Your task to perform on an android device: install app "Clock" Image 0: 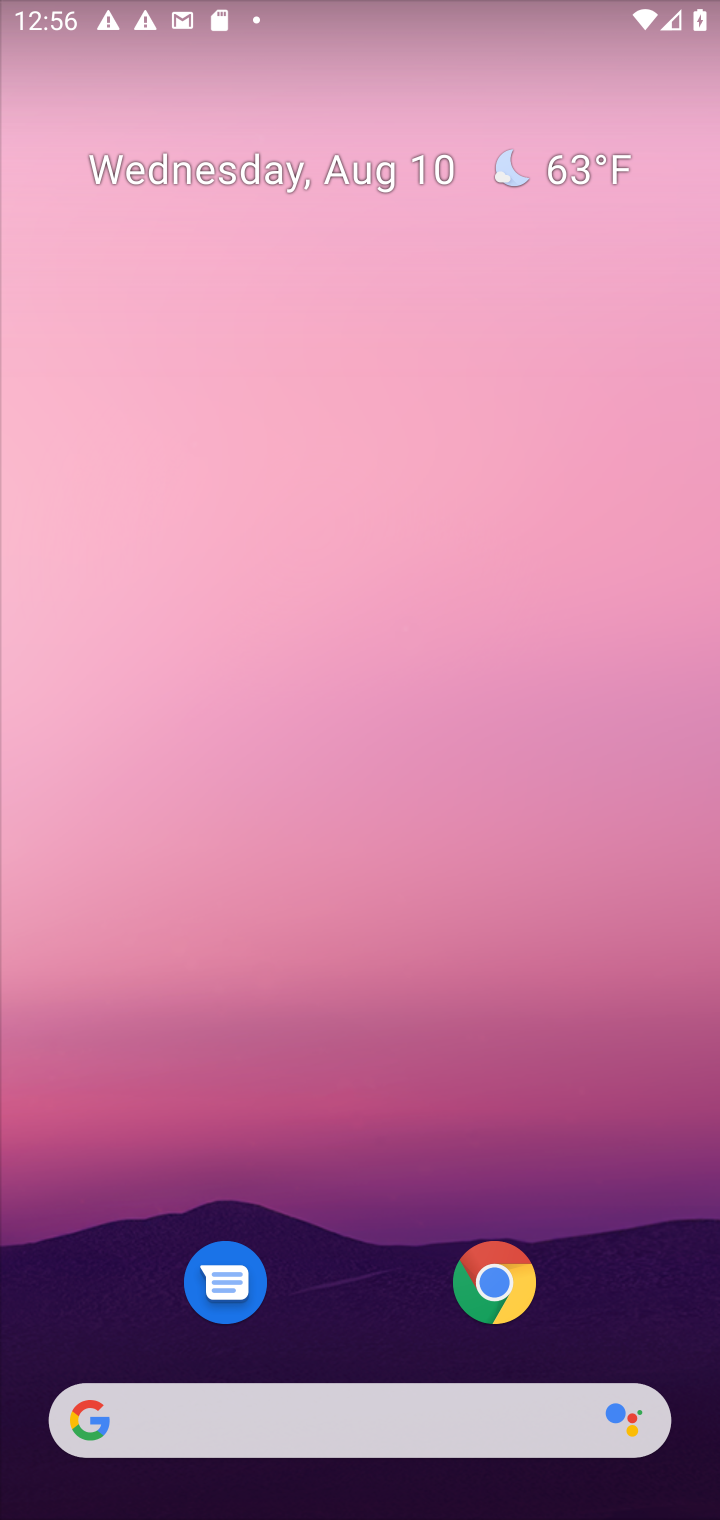
Step 0: drag from (238, 1314) to (307, 382)
Your task to perform on an android device: install app "Clock" Image 1: 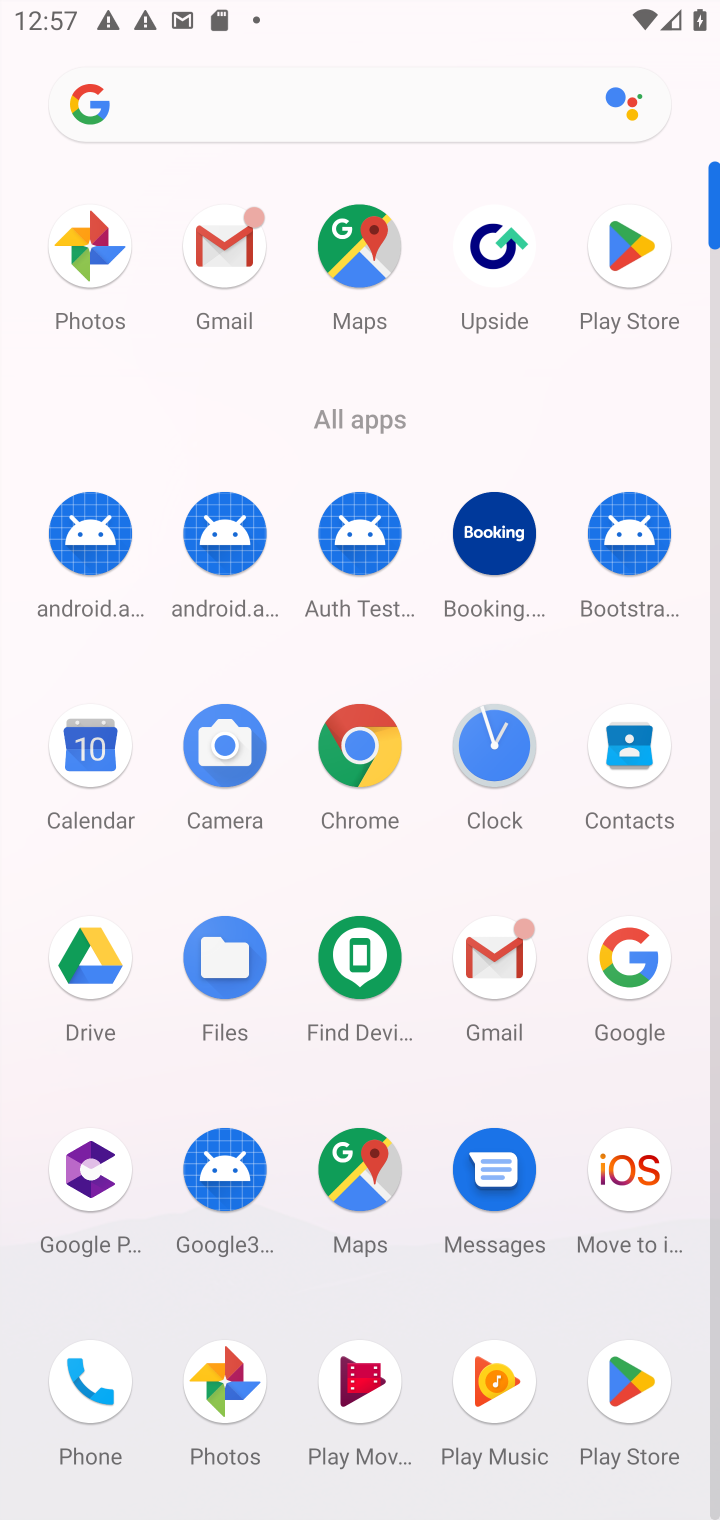
Step 1: click (656, 267)
Your task to perform on an android device: install app "Clock" Image 2: 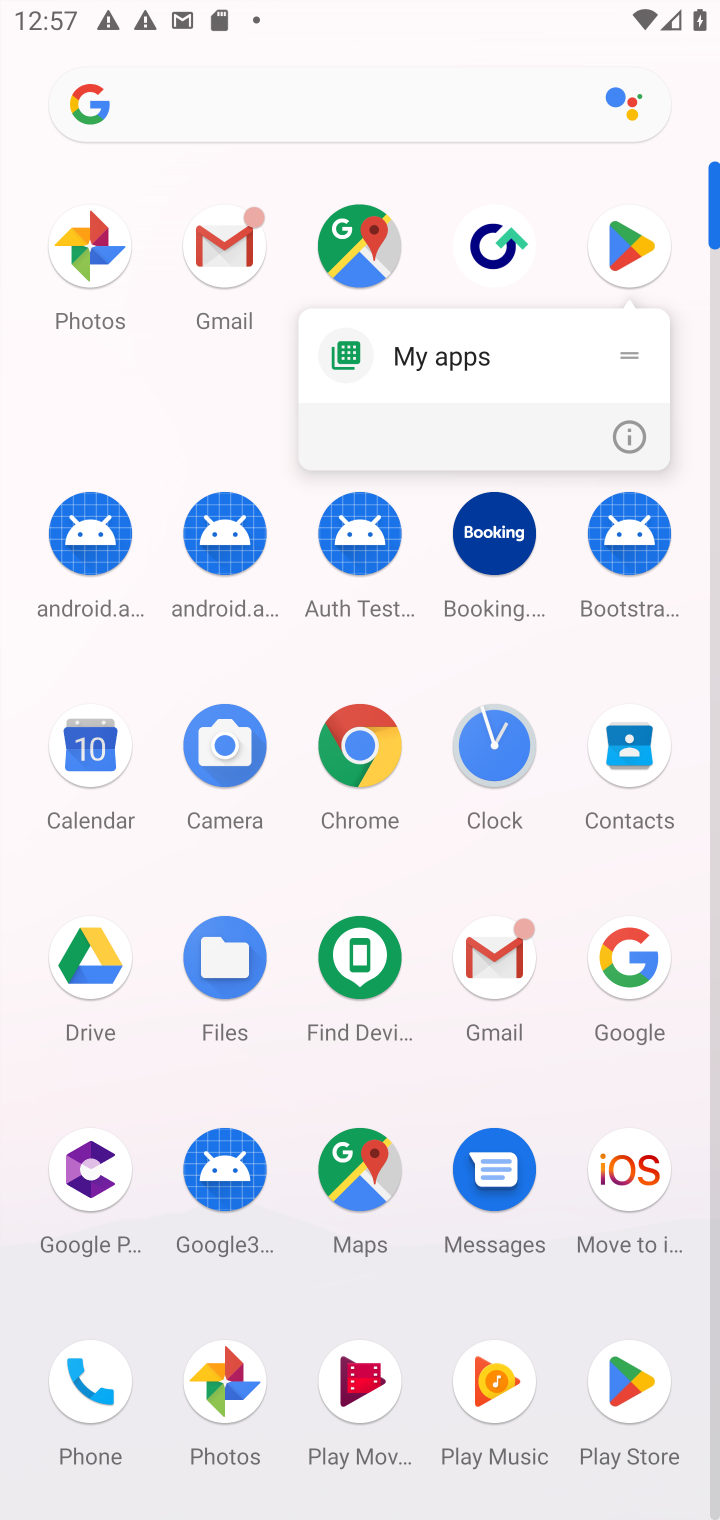
Step 2: click (611, 270)
Your task to perform on an android device: install app "Clock" Image 3: 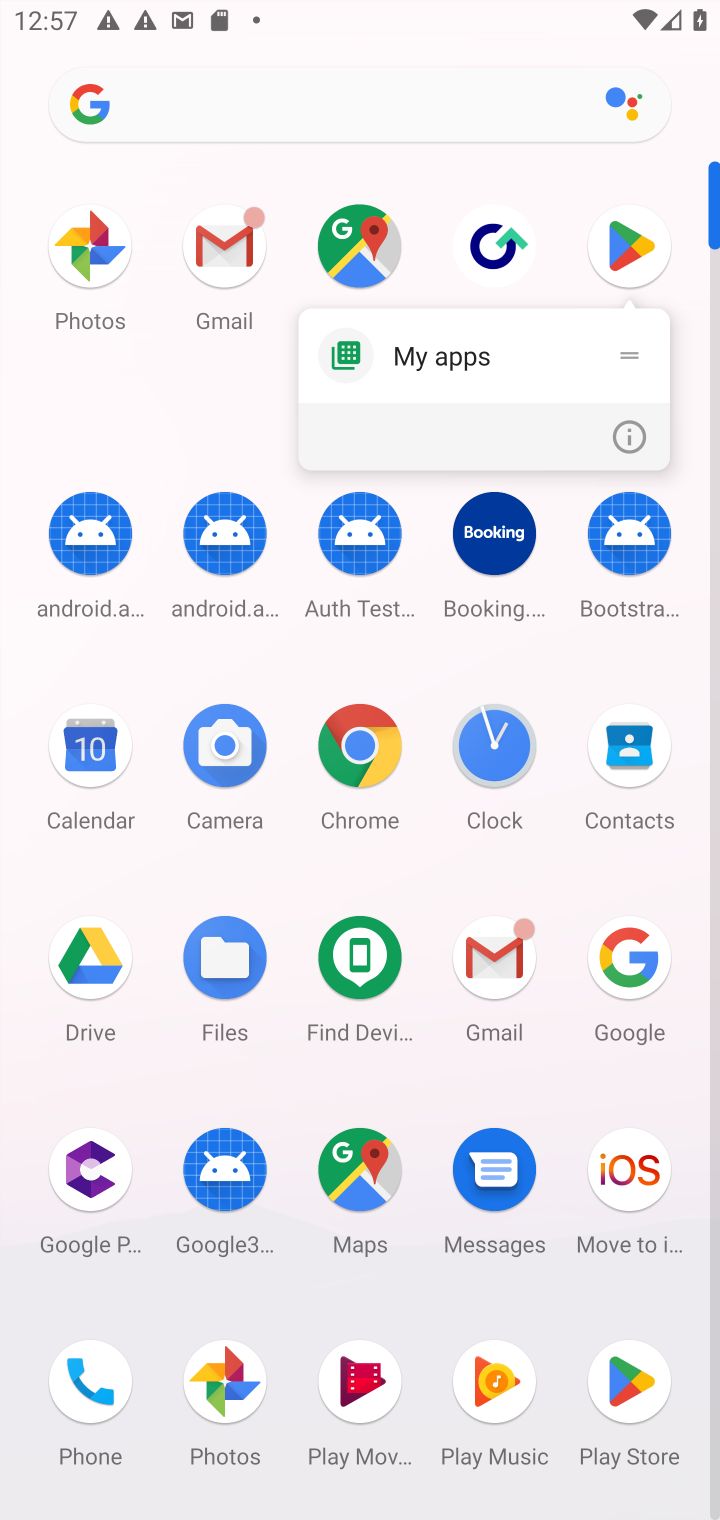
Step 3: click (611, 270)
Your task to perform on an android device: install app "Clock" Image 4: 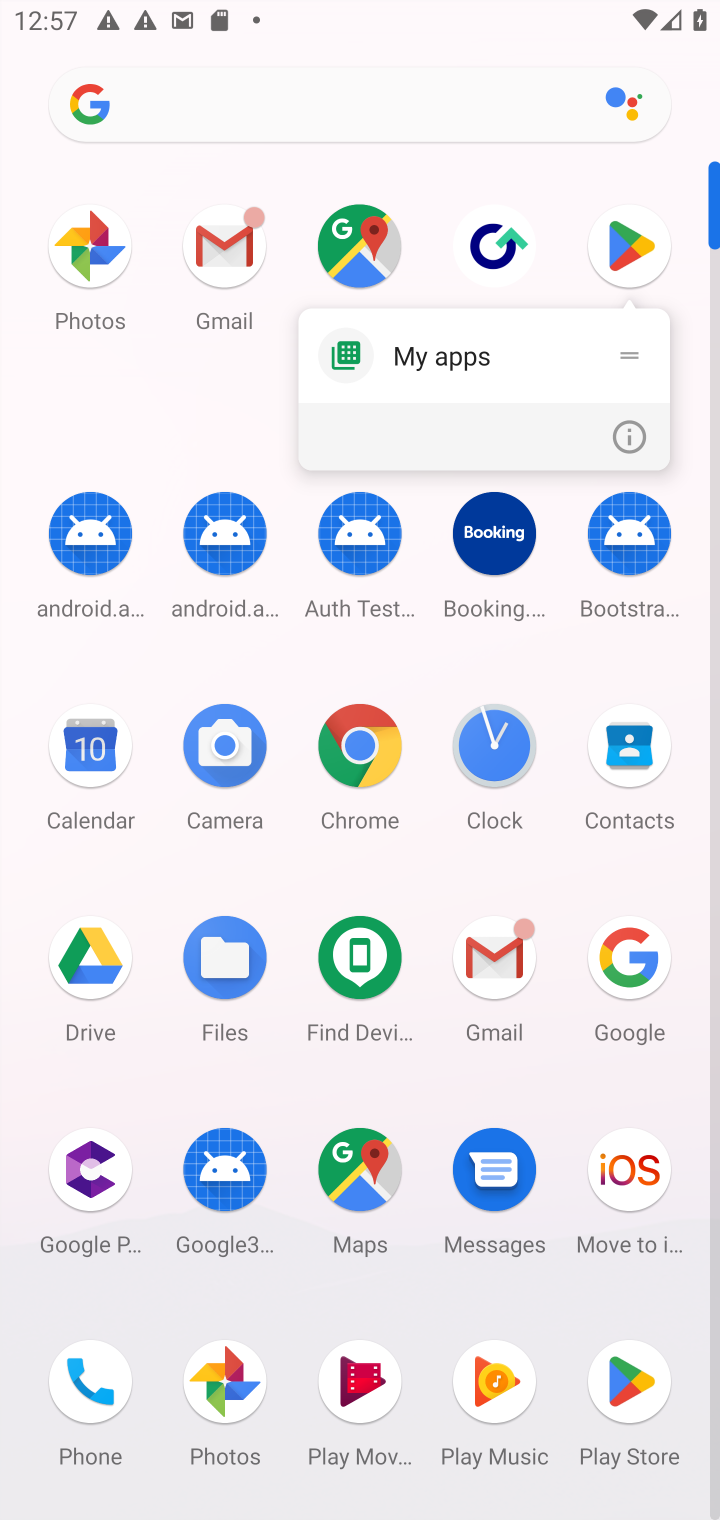
Step 4: click (611, 270)
Your task to perform on an android device: install app "Clock" Image 5: 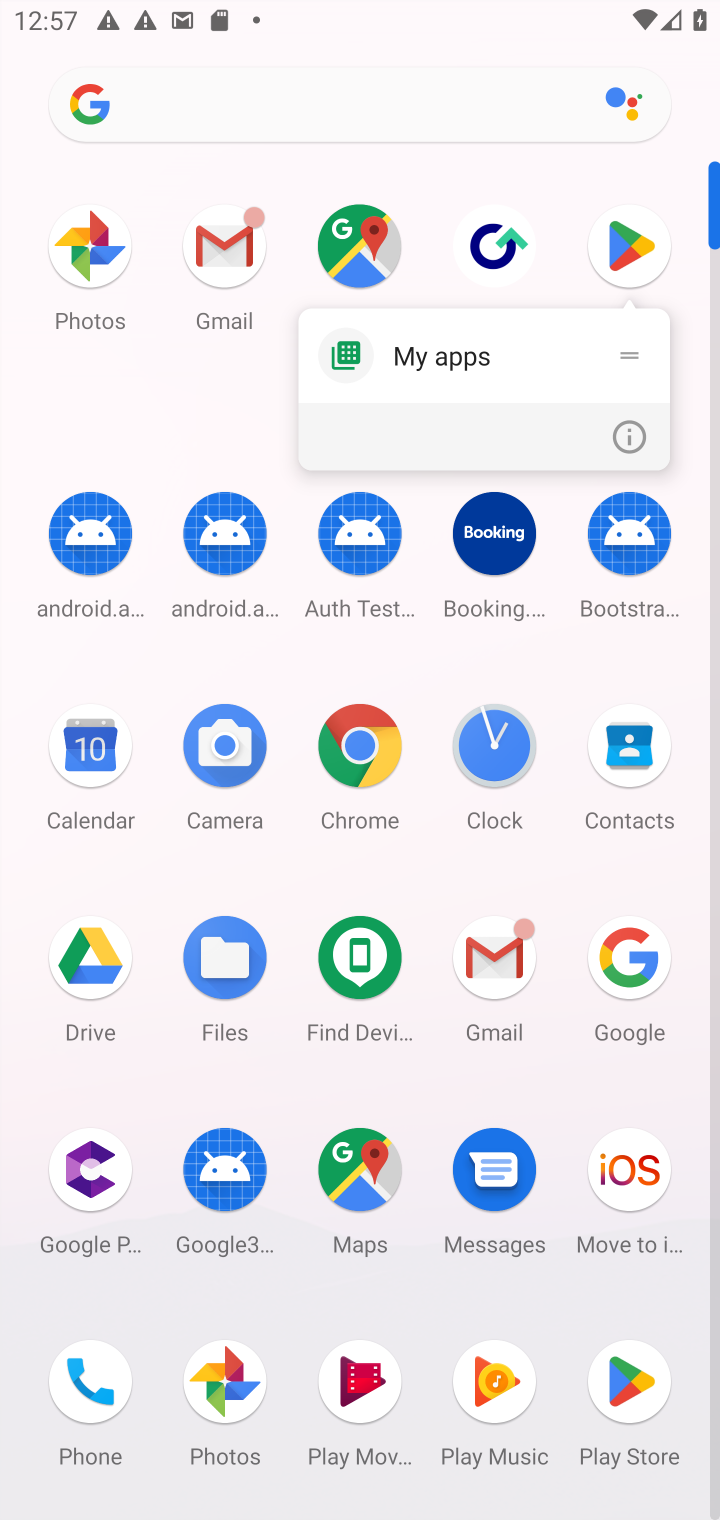
Step 5: click (607, 278)
Your task to perform on an android device: install app "Clock" Image 6: 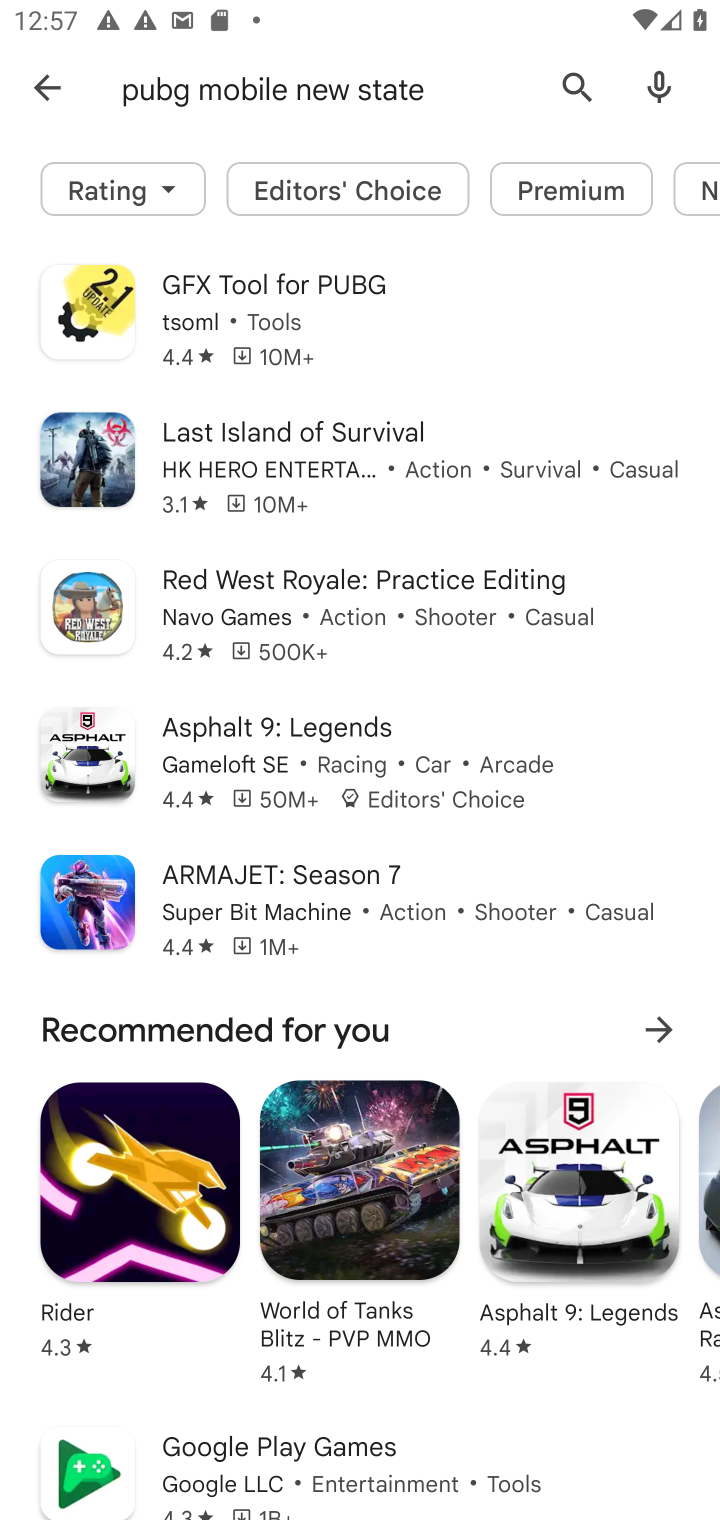
Step 6: click (44, 84)
Your task to perform on an android device: install app "Clock" Image 7: 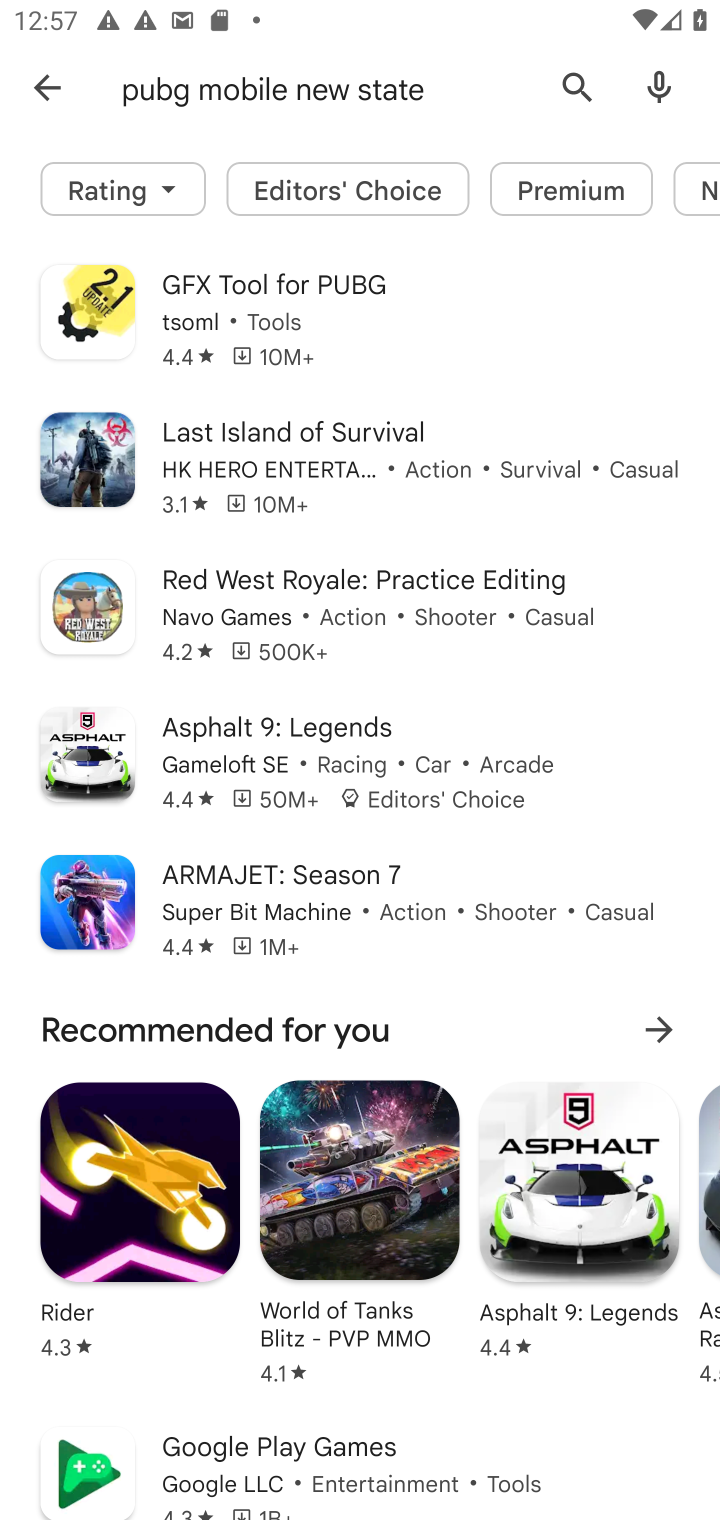
Step 7: click (44, 84)
Your task to perform on an android device: install app "Clock" Image 8: 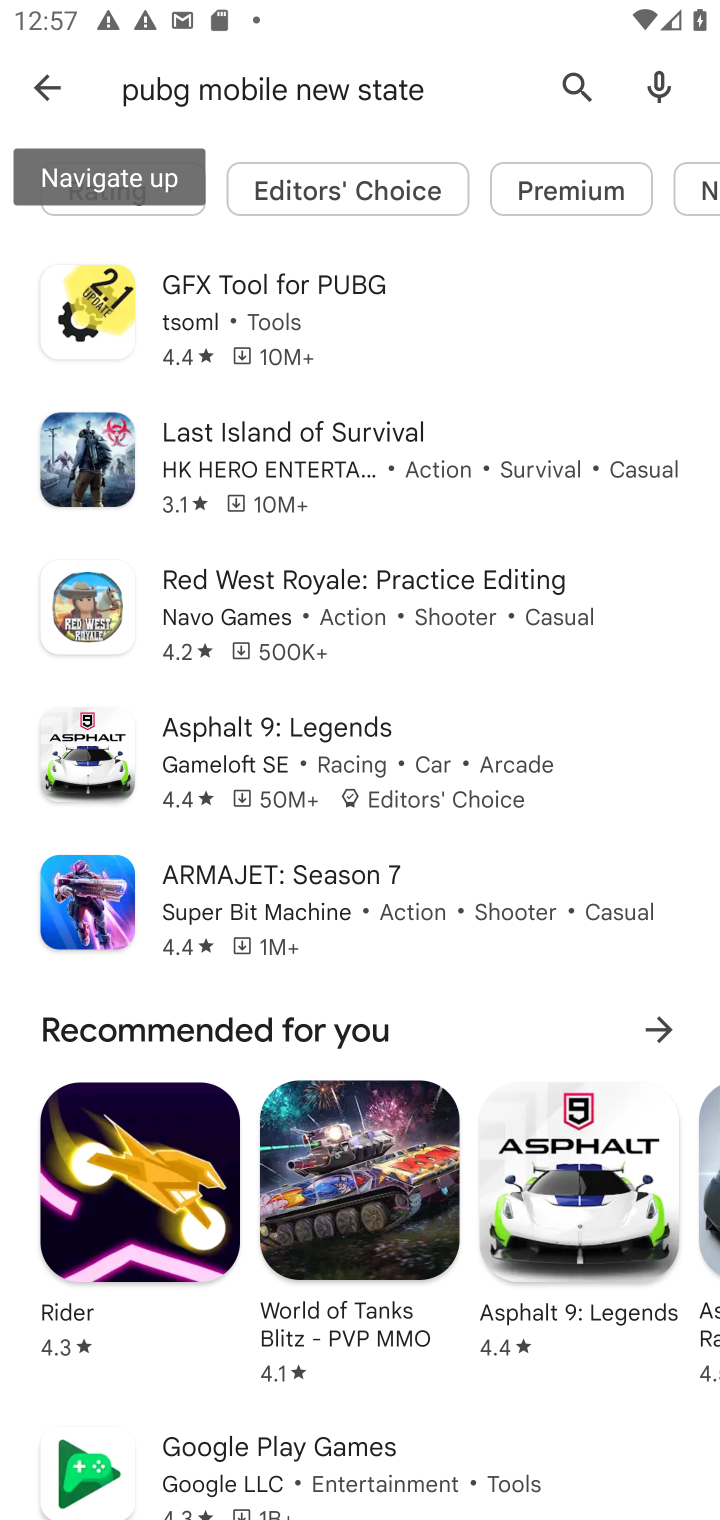
Step 8: click (63, 87)
Your task to perform on an android device: install app "Clock" Image 9: 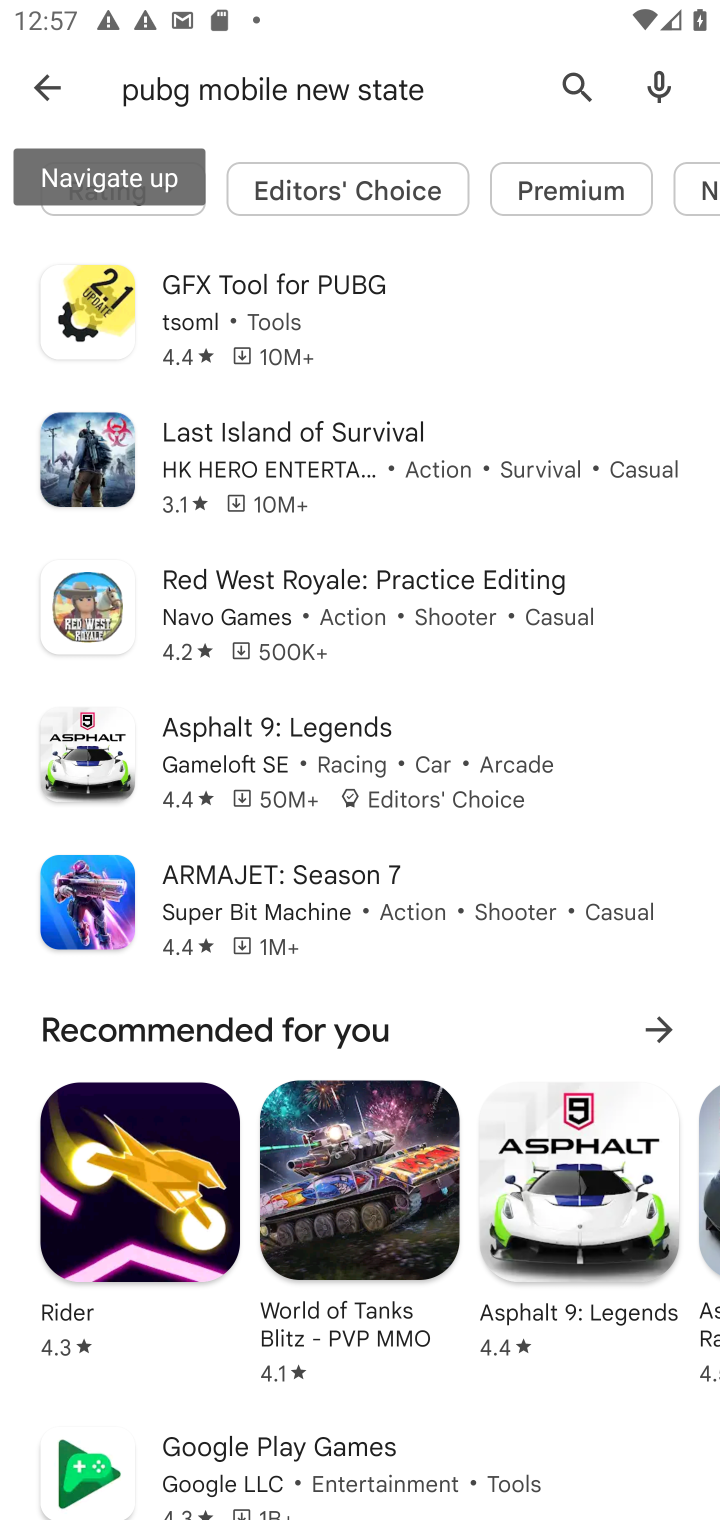
Step 9: click (51, 83)
Your task to perform on an android device: install app "Clock" Image 10: 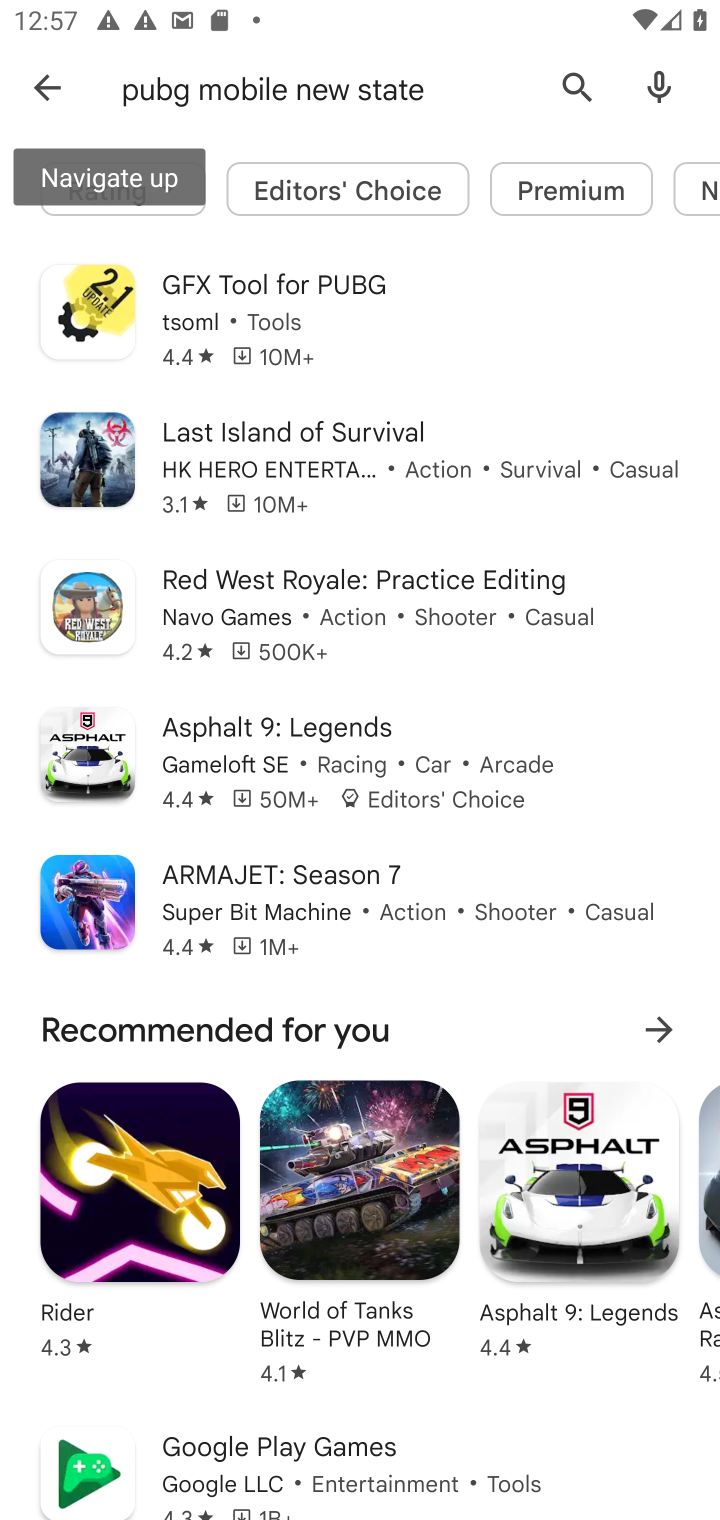
Step 10: click (51, 83)
Your task to perform on an android device: install app "Clock" Image 11: 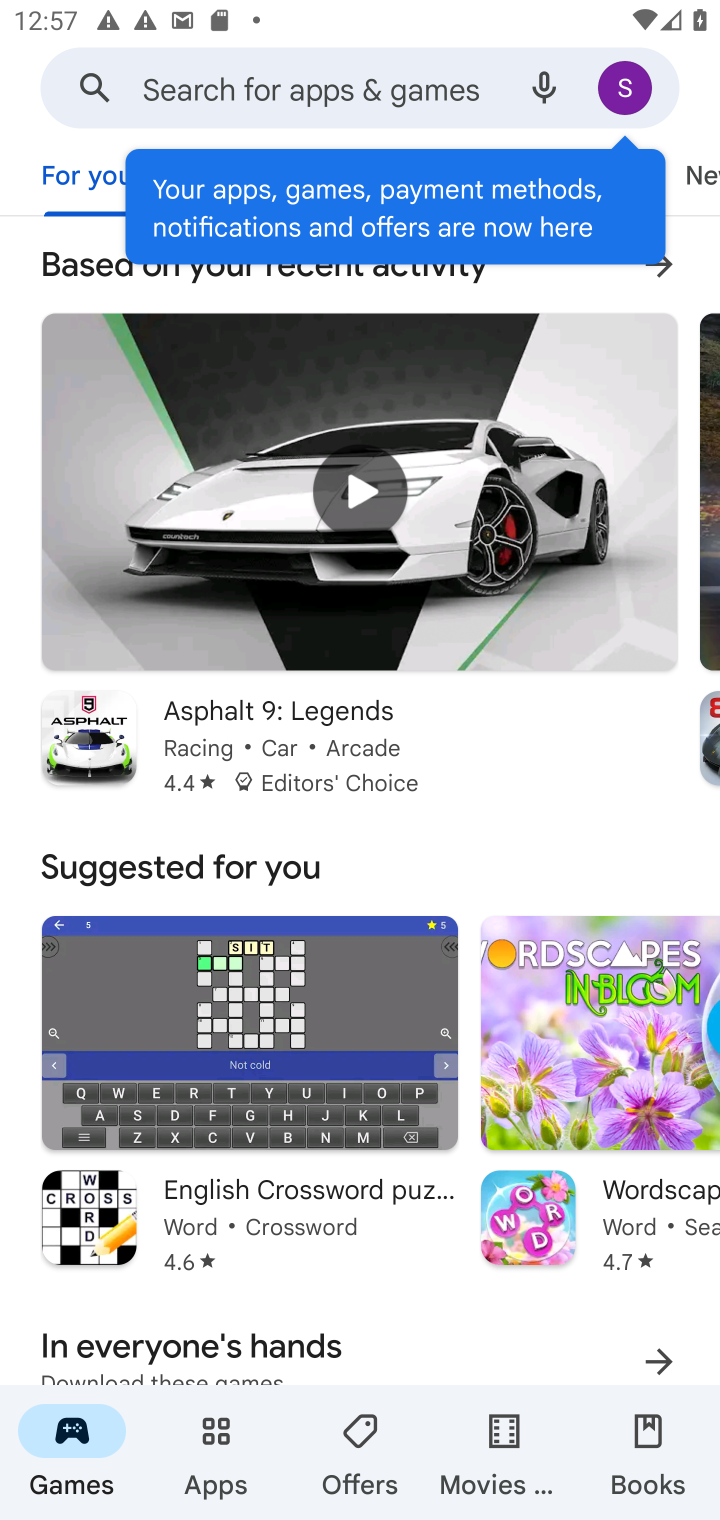
Step 11: click (367, 67)
Your task to perform on an android device: install app "Clock" Image 12: 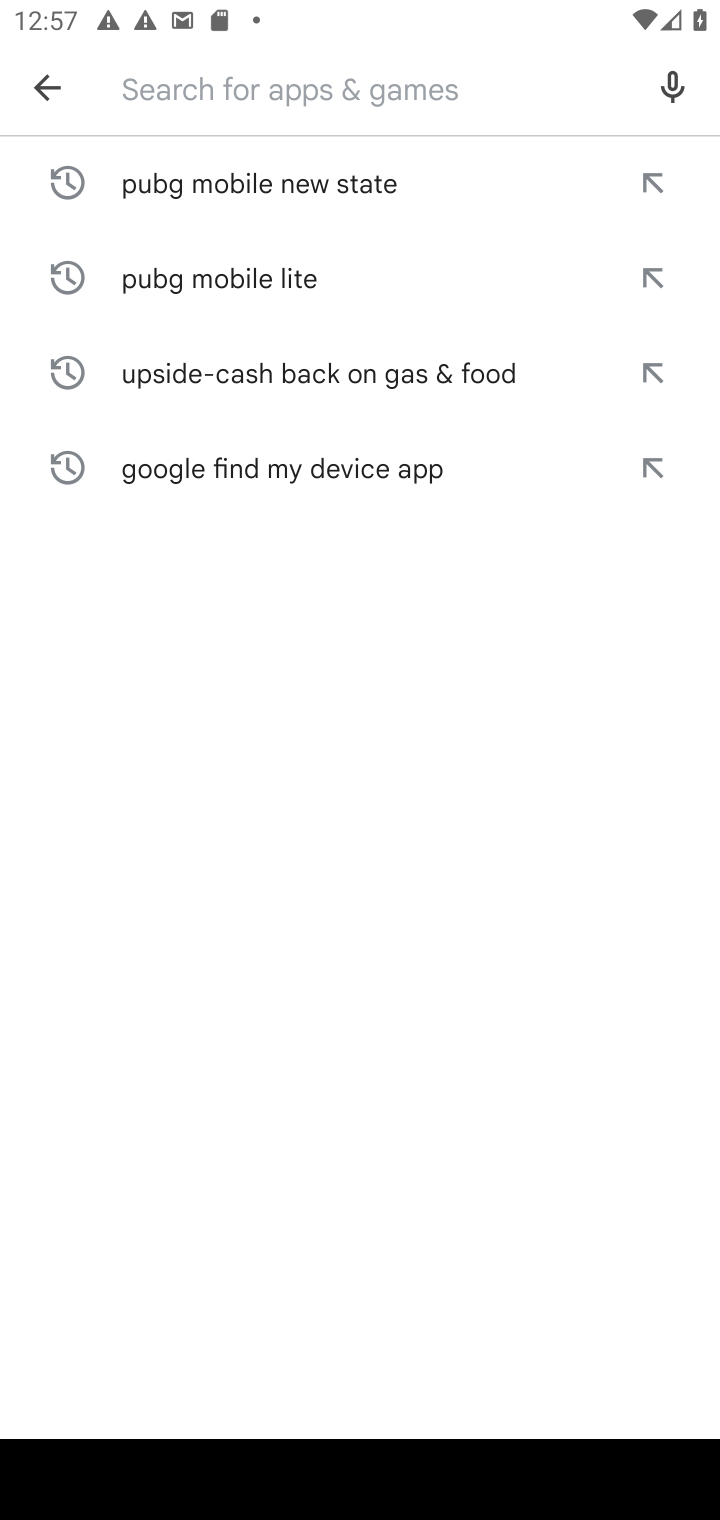
Step 12: type "Clock "
Your task to perform on an android device: install app "Clock" Image 13: 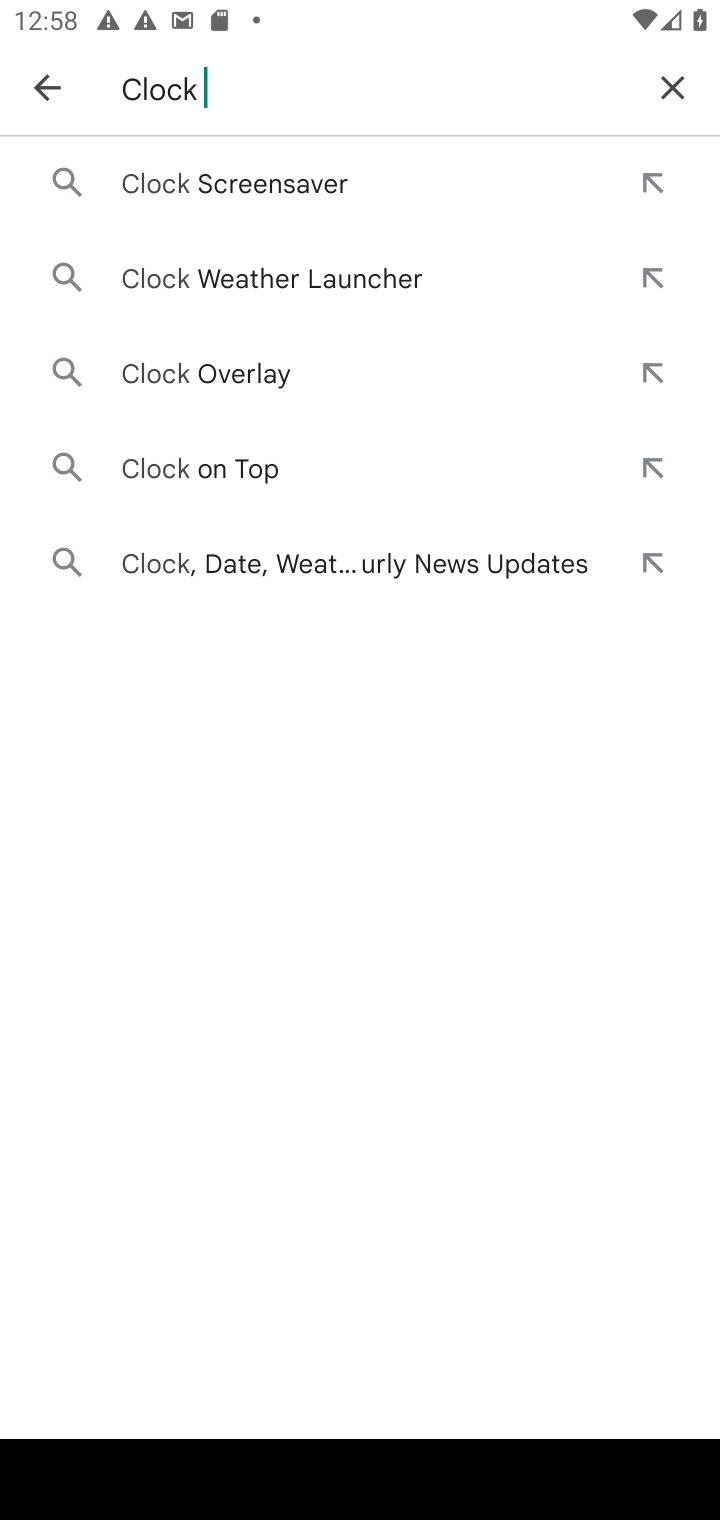
Step 13: click (253, 185)
Your task to perform on an android device: install app "Clock" Image 14: 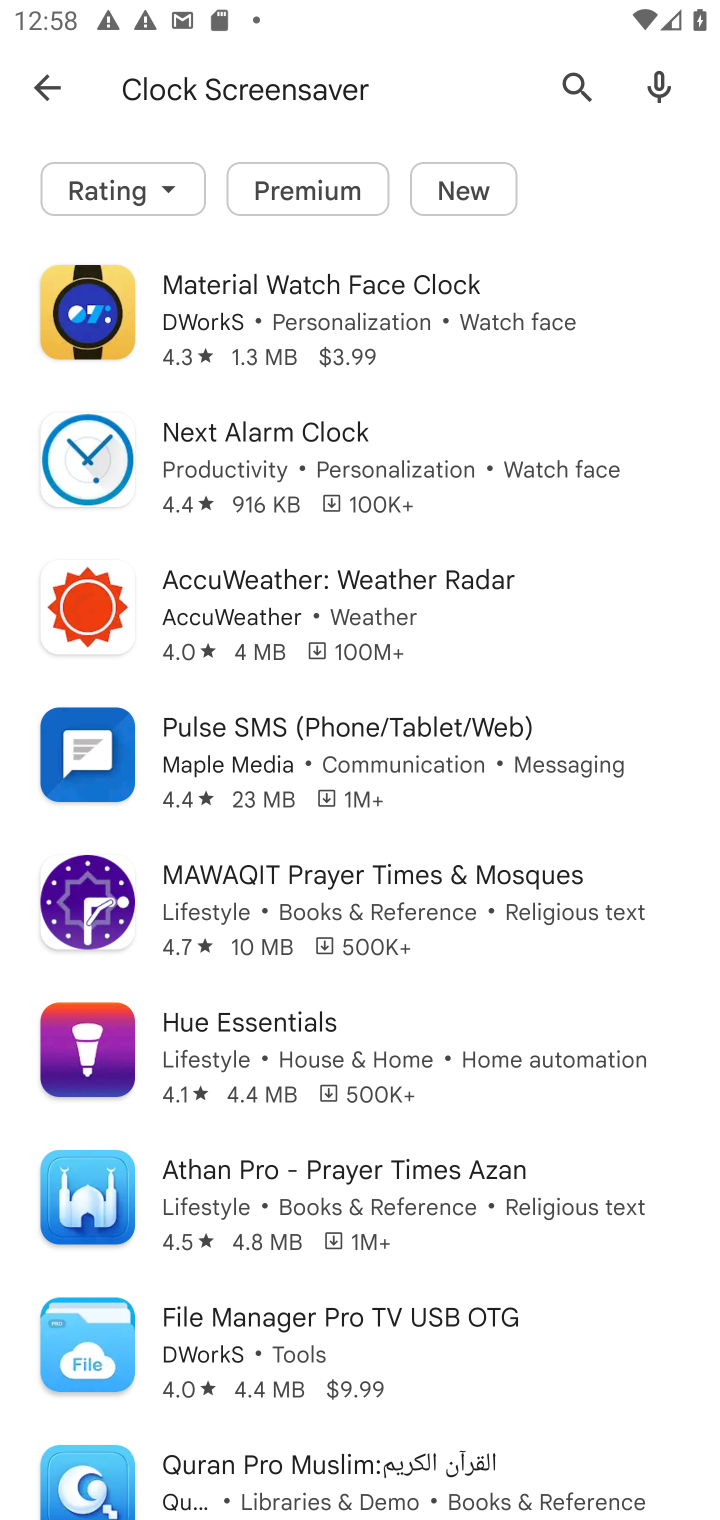
Step 14: click (421, 102)
Your task to perform on an android device: install app "Clock" Image 15: 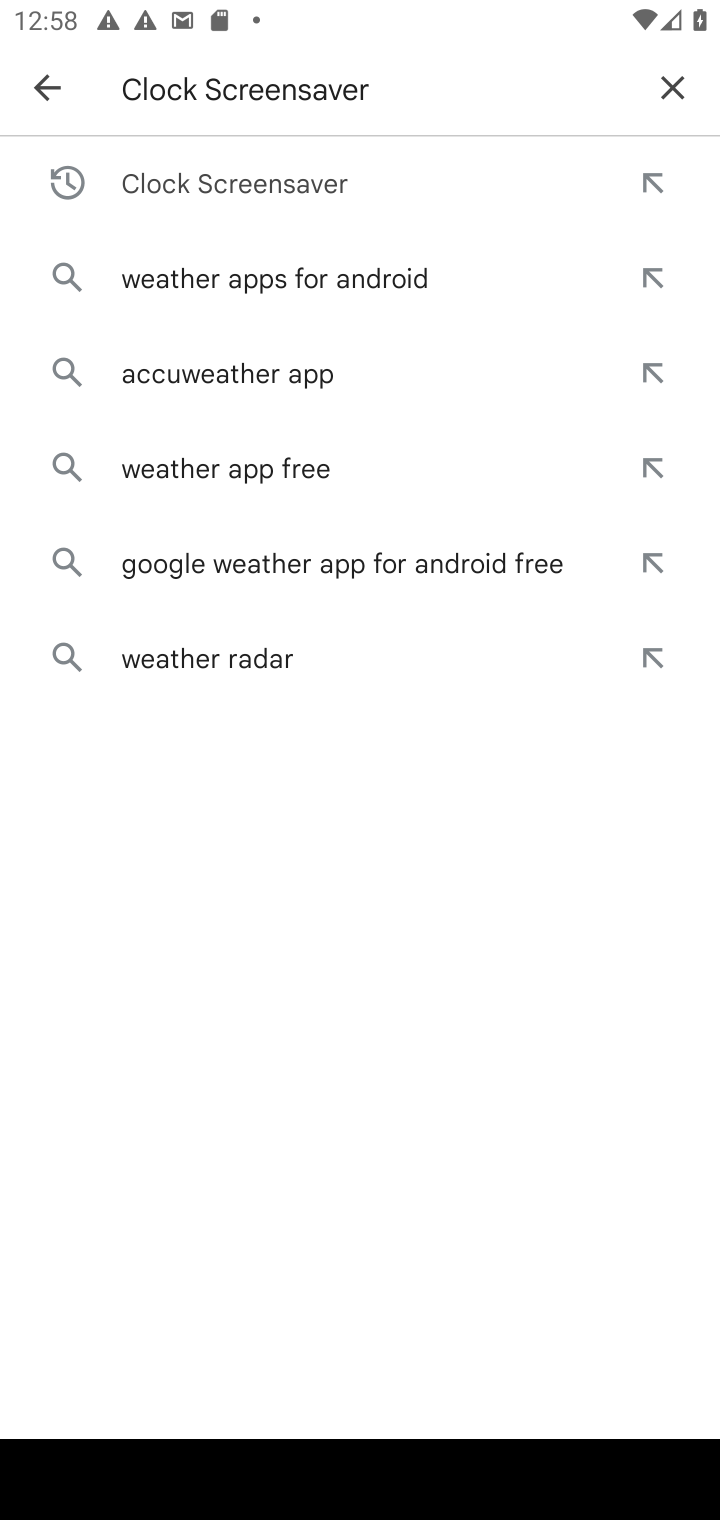
Step 15: click (95, 86)
Your task to perform on an android device: install app "Clock" Image 16: 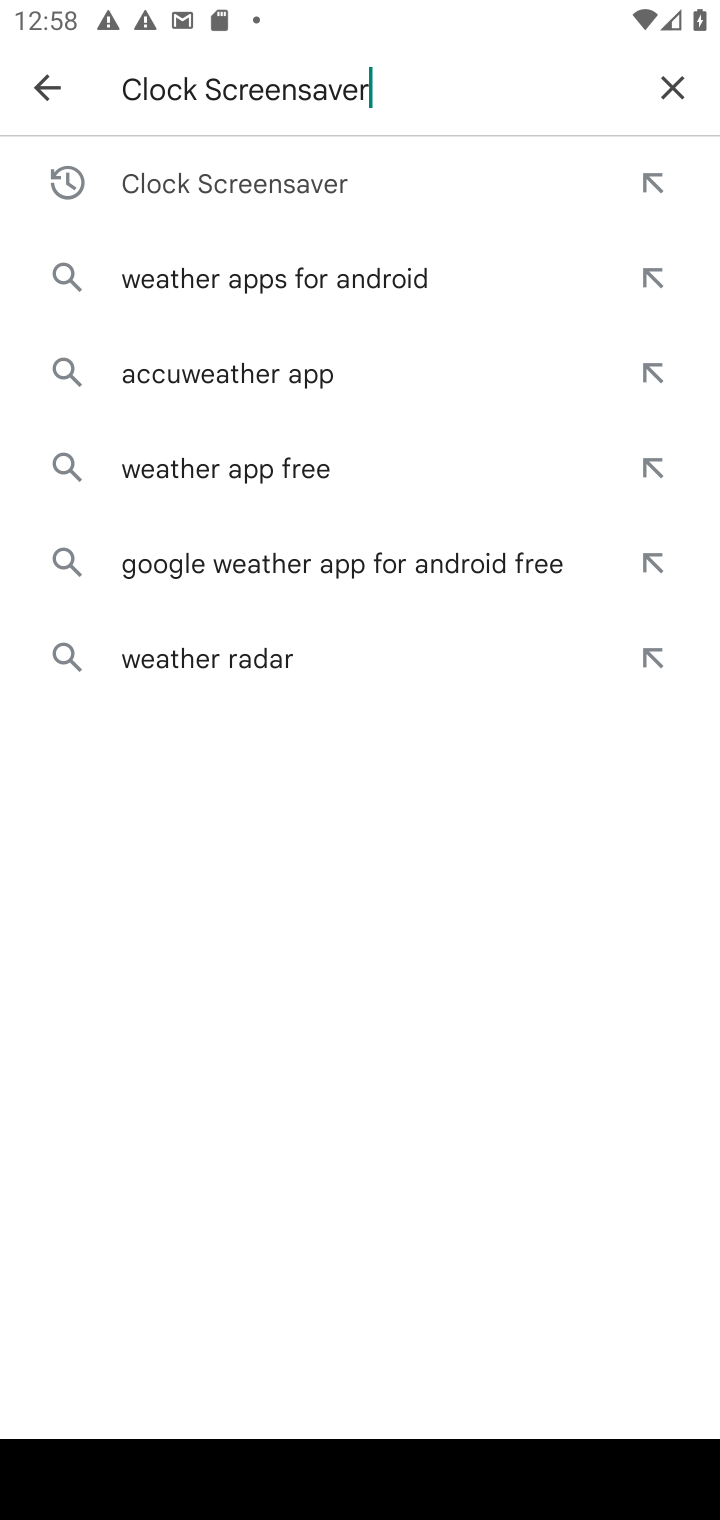
Step 16: click (665, 70)
Your task to perform on an android device: install app "Clock" Image 17: 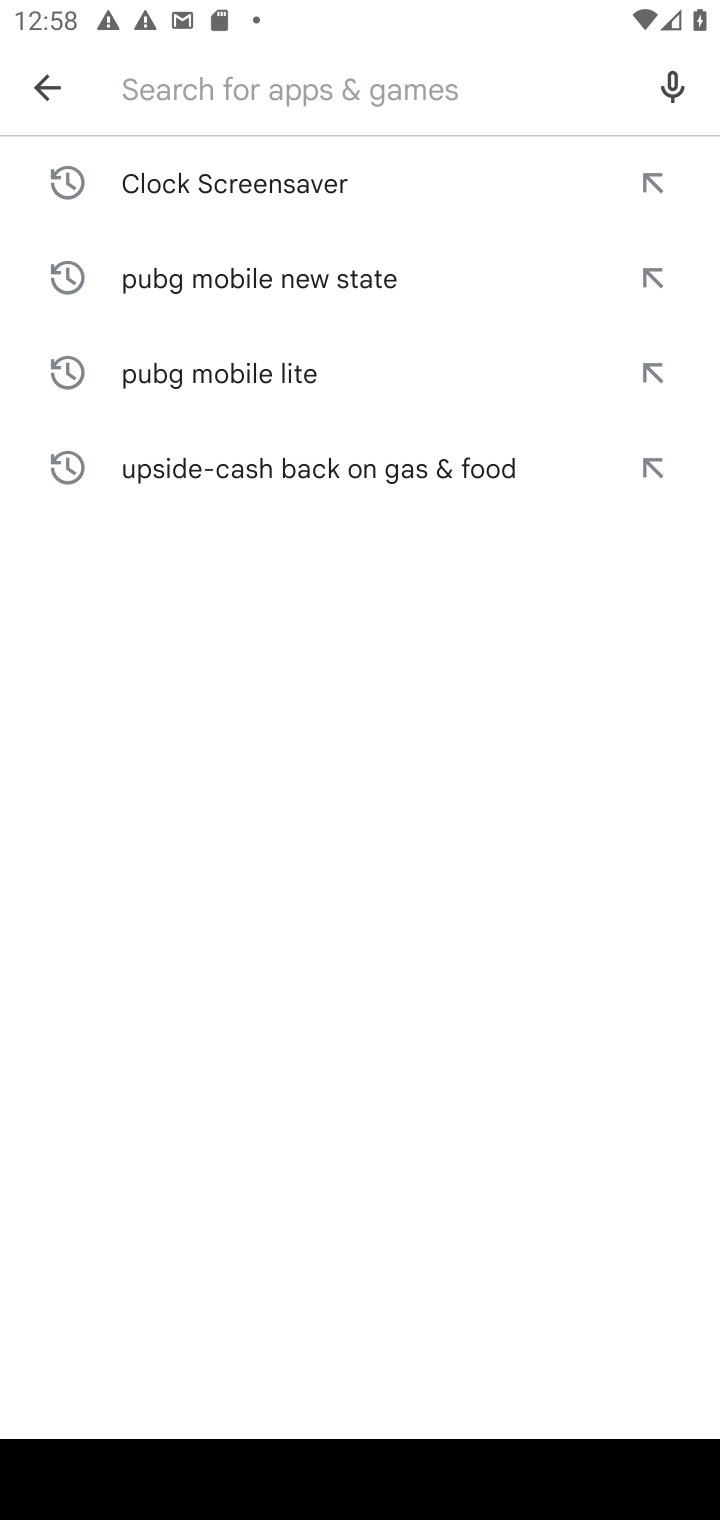
Step 17: click (329, 80)
Your task to perform on an android device: install app "Clock" Image 18: 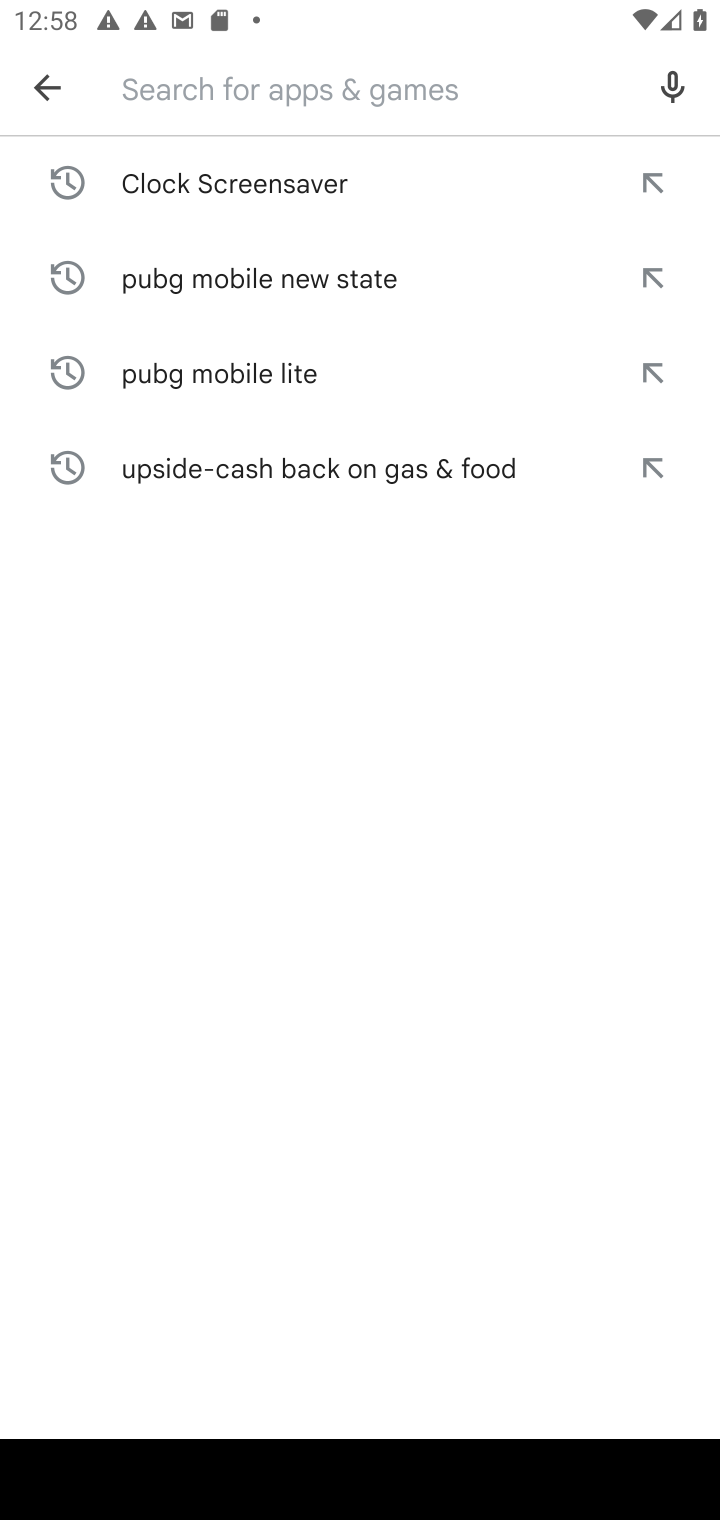
Step 18: type "Clock "
Your task to perform on an android device: install app "Clock" Image 19: 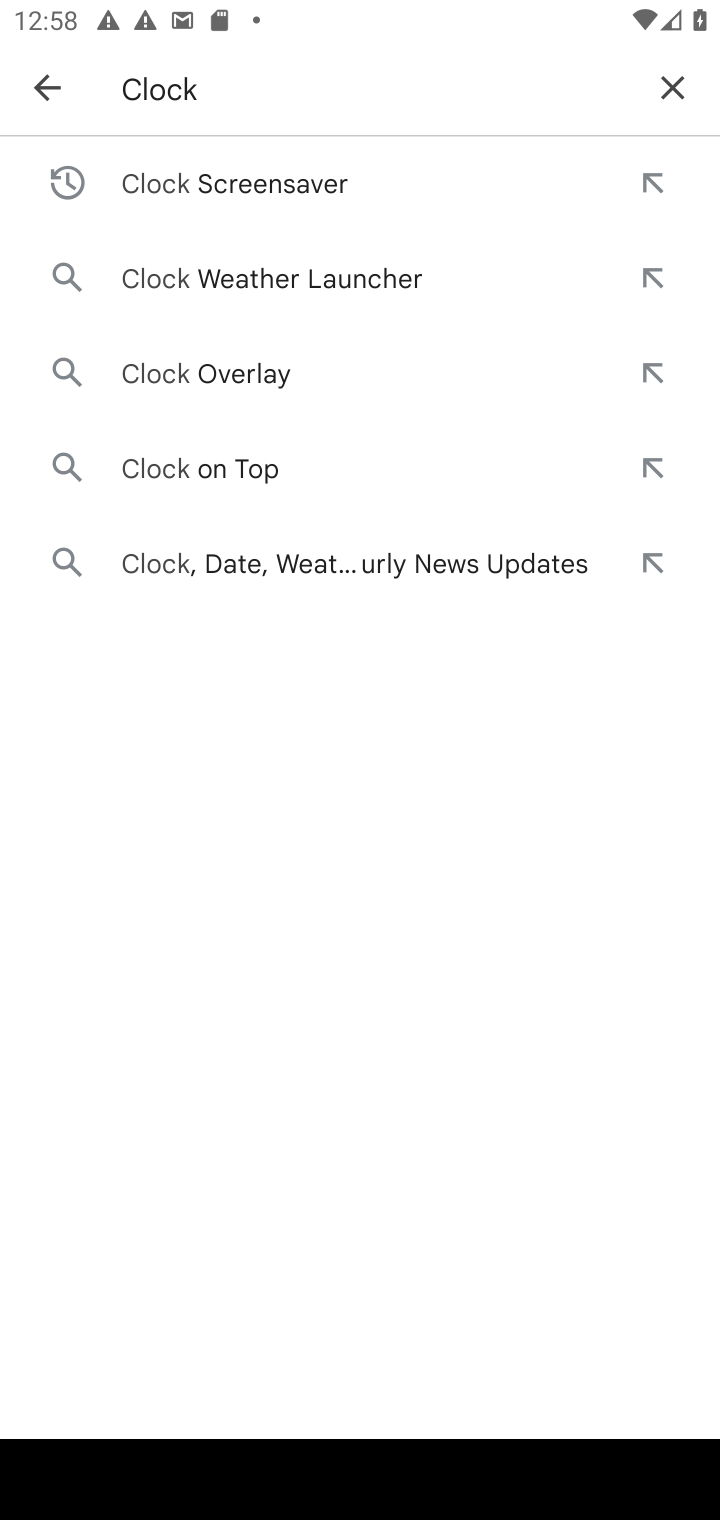
Step 19: click (270, 442)
Your task to perform on an android device: install app "Clock" Image 20: 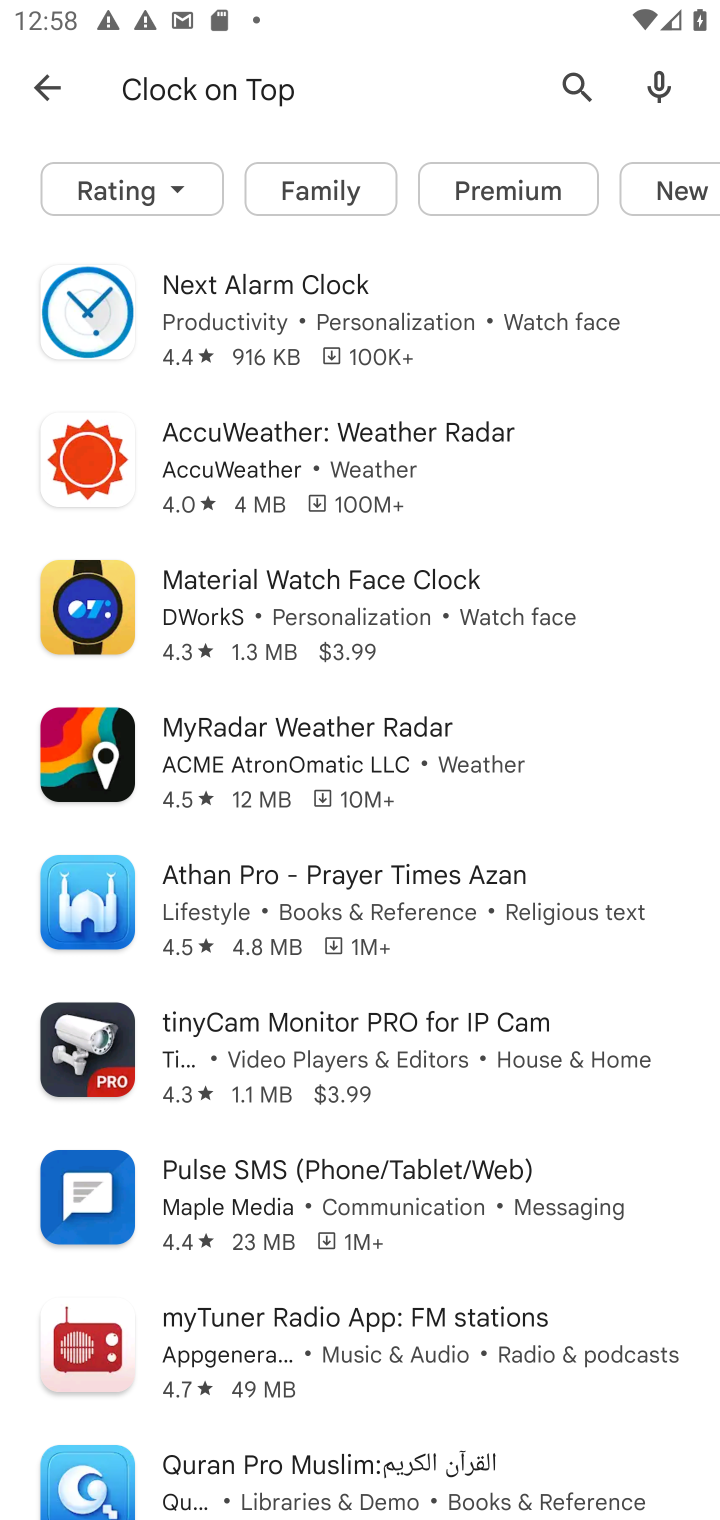
Step 20: task complete